Your task to perform on an android device: turn off improve location accuracy Image 0: 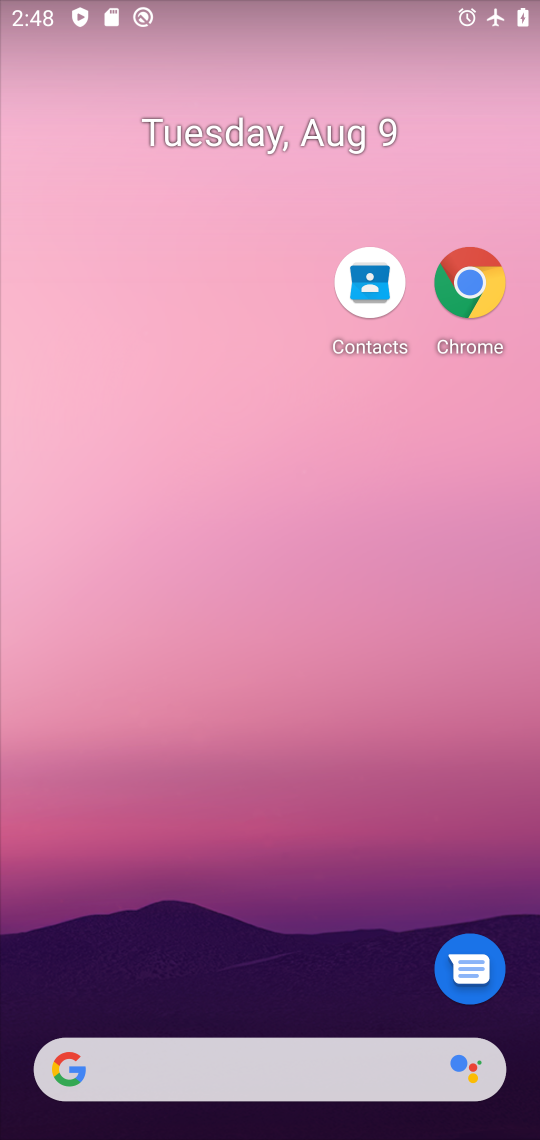
Step 0: drag from (274, 981) to (264, 121)
Your task to perform on an android device: turn off improve location accuracy Image 1: 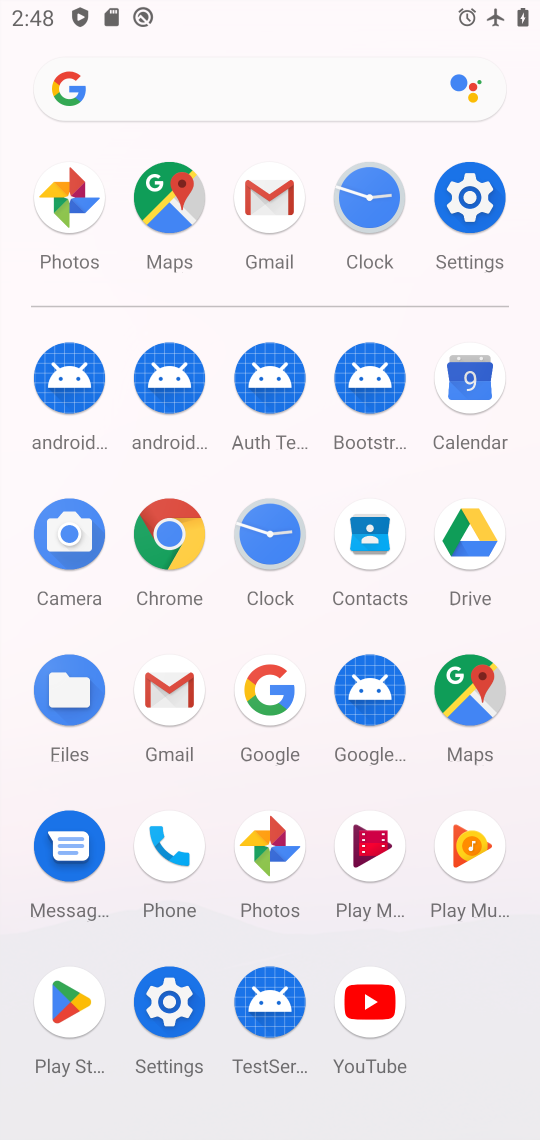
Step 1: click (459, 280)
Your task to perform on an android device: turn off improve location accuracy Image 2: 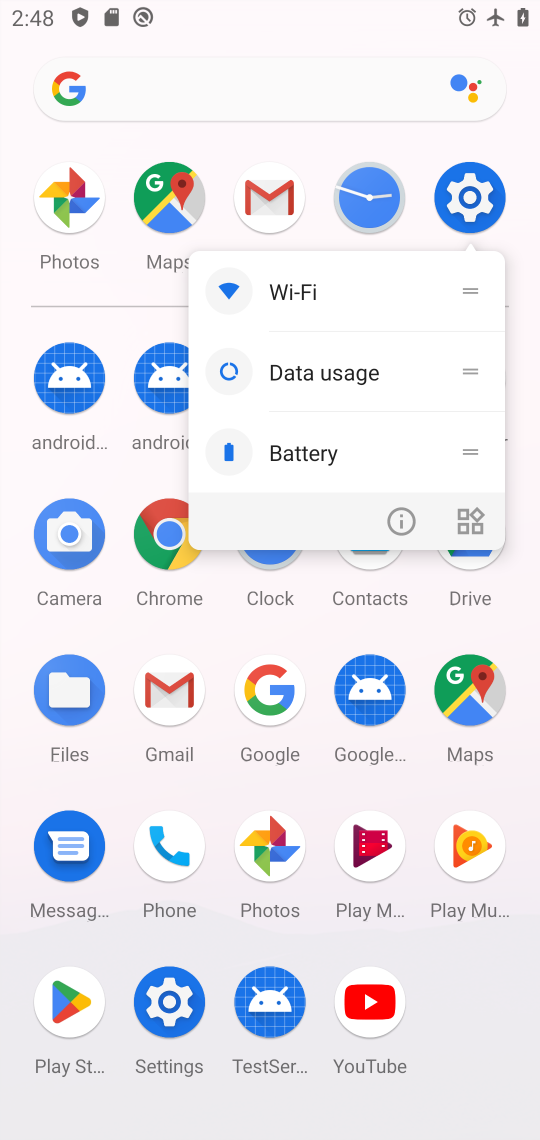
Step 2: click (400, 515)
Your task to perform on an android device: turn off improve location accuracy Image 3: 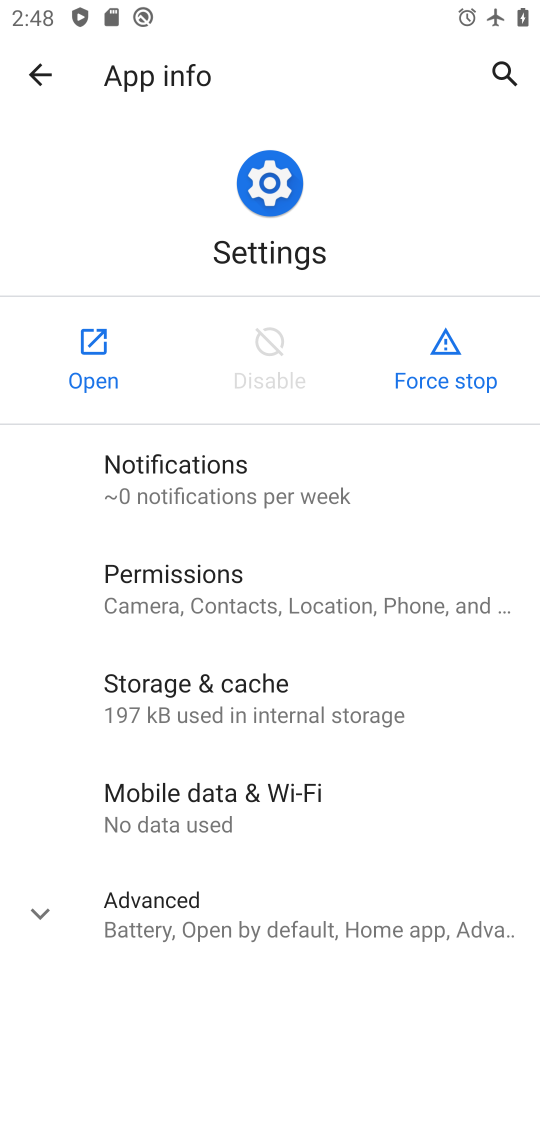
Step 3: click (101, 341)
Your task to perform on an android device: turn off improve location accuracy Image 4: 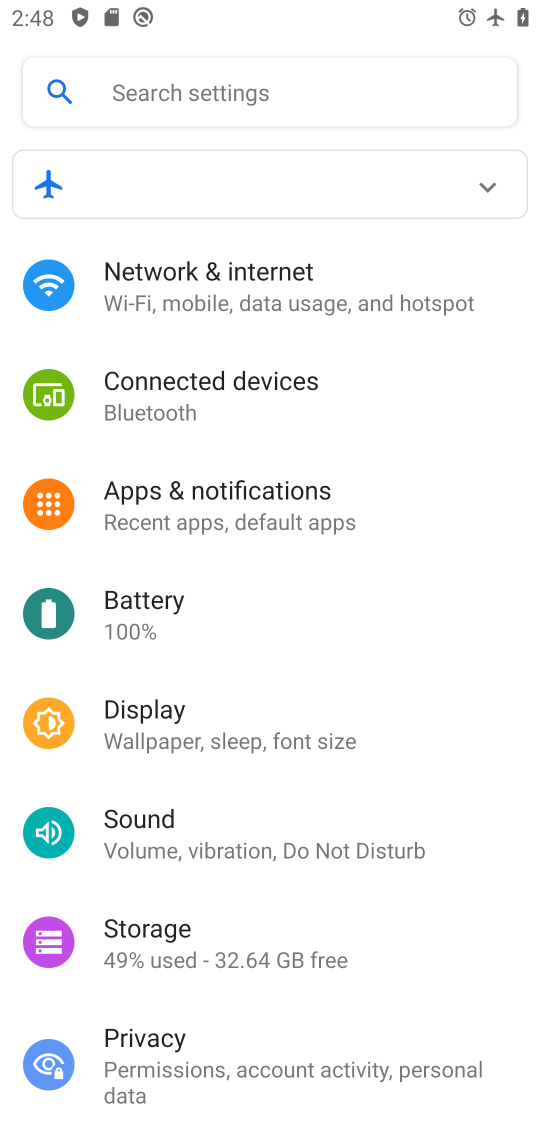
Step 4: drag from (237, 932) to (352, 242)
Your task to perform on an android device: turn off improve location accuracy Image 5: 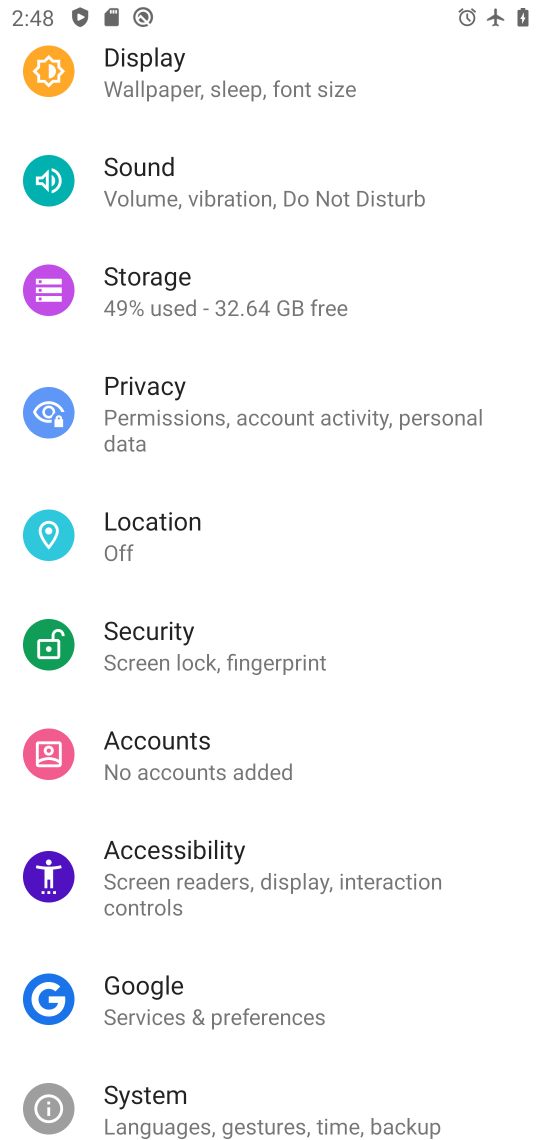
Step 5: click (207, 545)
Your task to perform on an android device: turn off improve location accuracy Image 6: 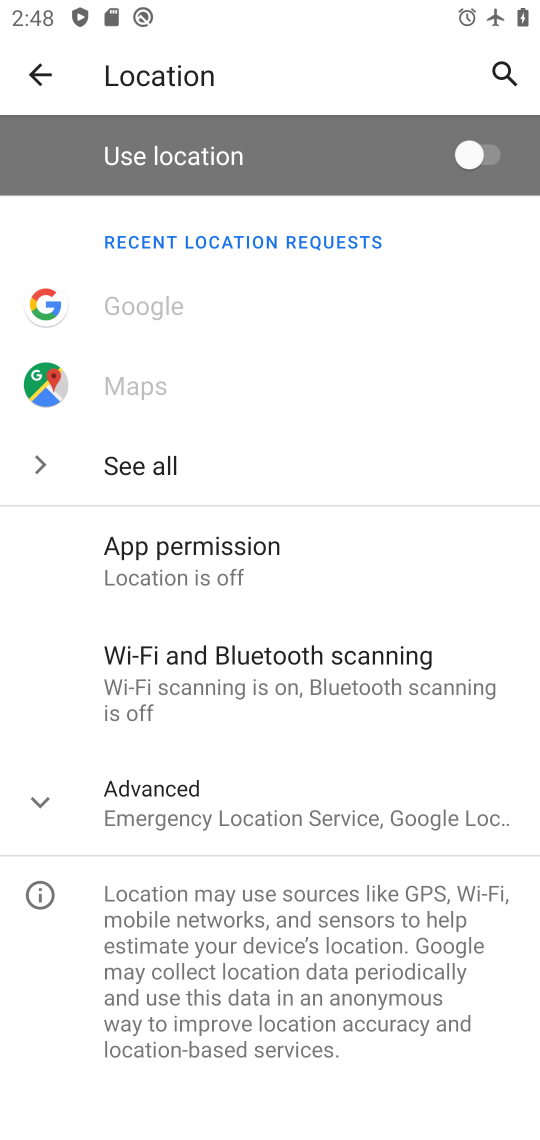
Step 6: click (186, 791)
Your task to perform on an android device: turn off improve location accuracy Image 7: 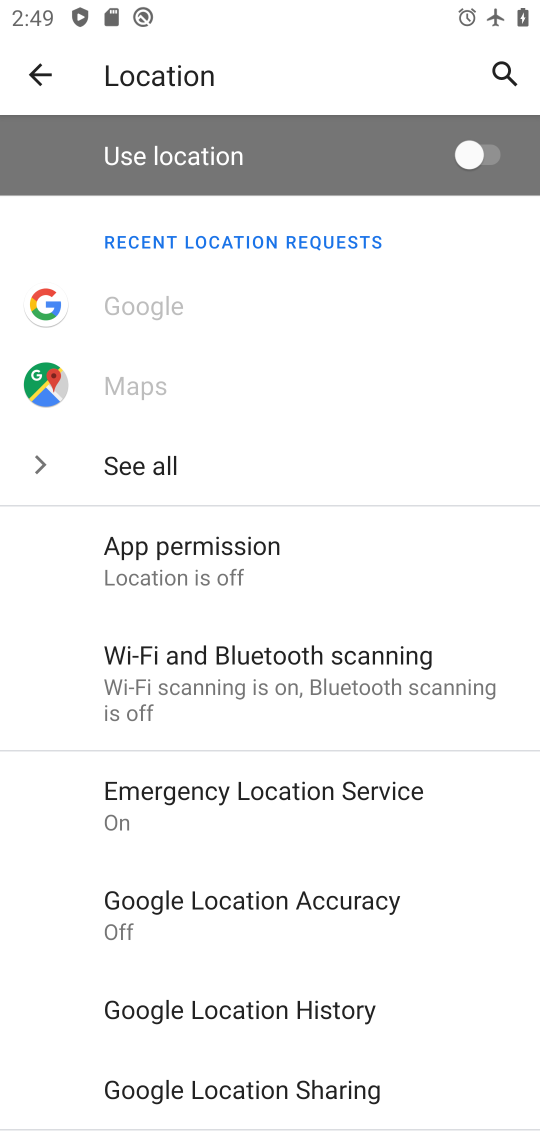
Step 7: click (352, 901)
Your task to perform on an android device: turn off improve location accuracy Image 8: 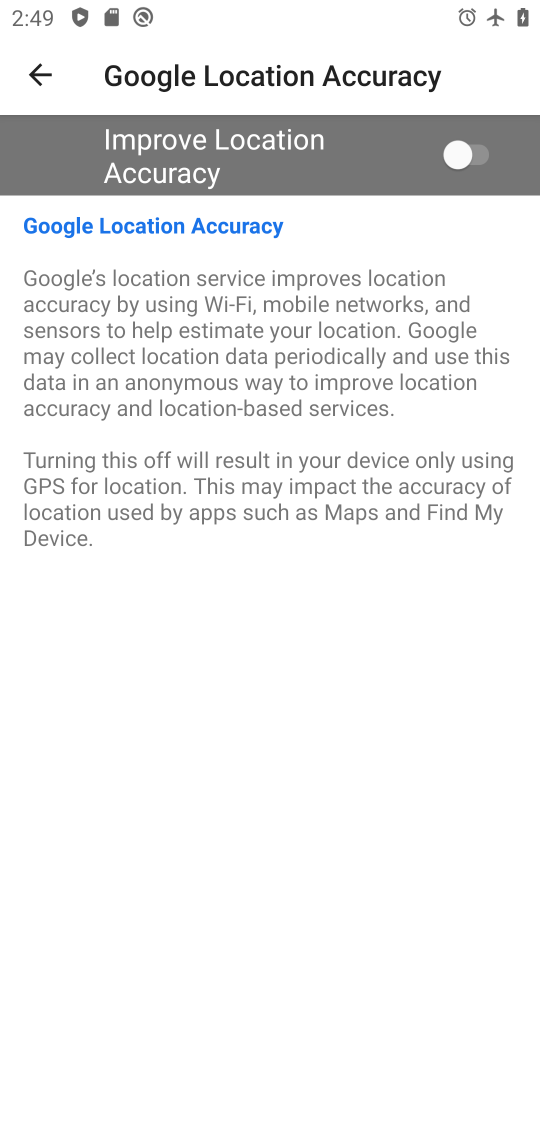
Step 8: task complete